Your task to perform on an android device: Open my contact list Image 0: 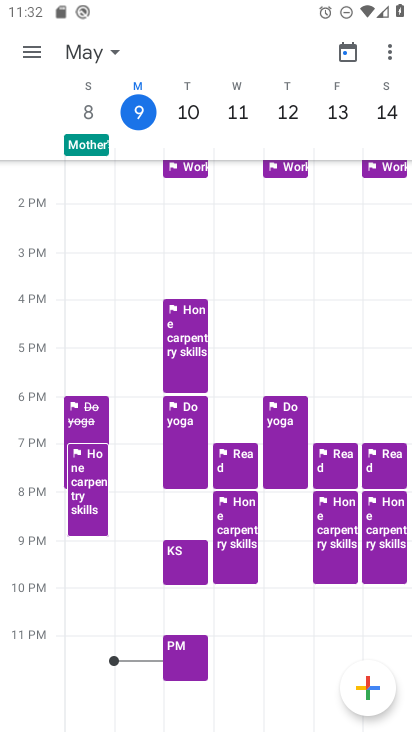
Step 0: press home button
Your task to perform on an android device: Open my contact list Image 1: 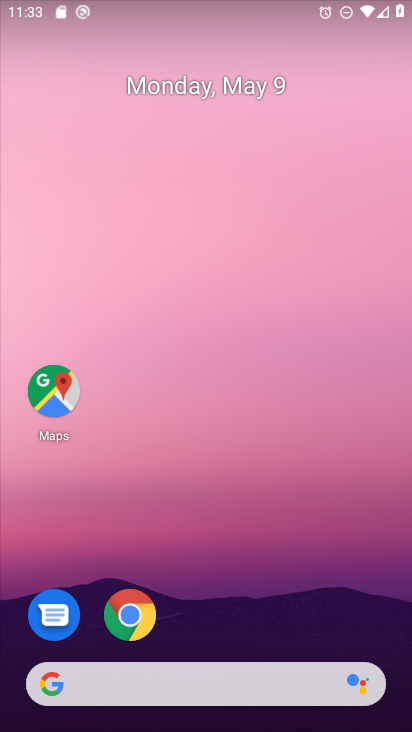
Step 1: drag from (239, 727) to (181, 357)
Your task to perform on an android device: Open my contact list Image 2: 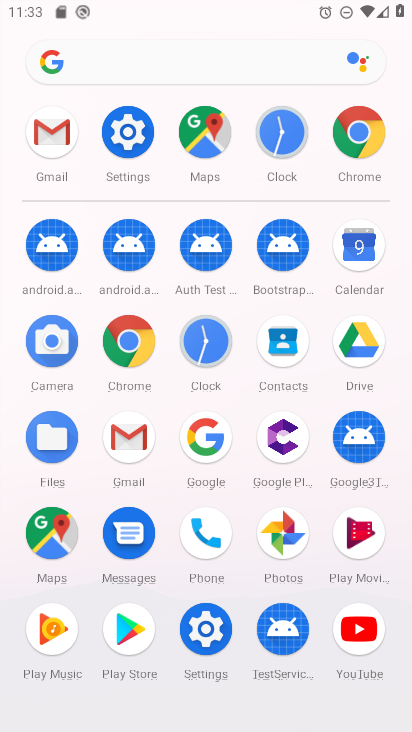
Step 2: click (190, 532)
Your task to perform on an android device: Open my contact list Image 3: 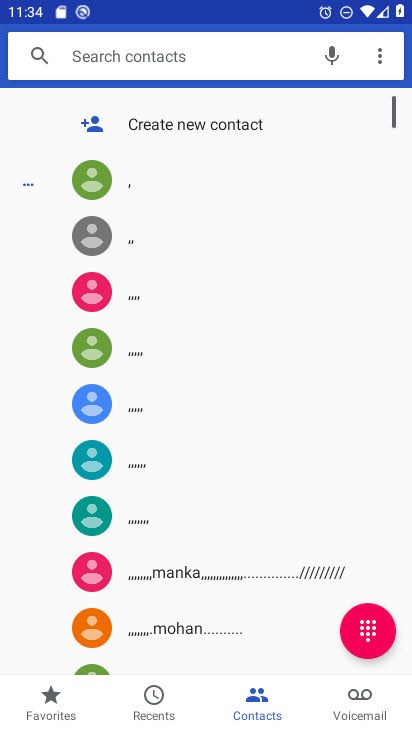
Step 3: task complete